Your task to perform on an android device: Open internet settings Image 0: 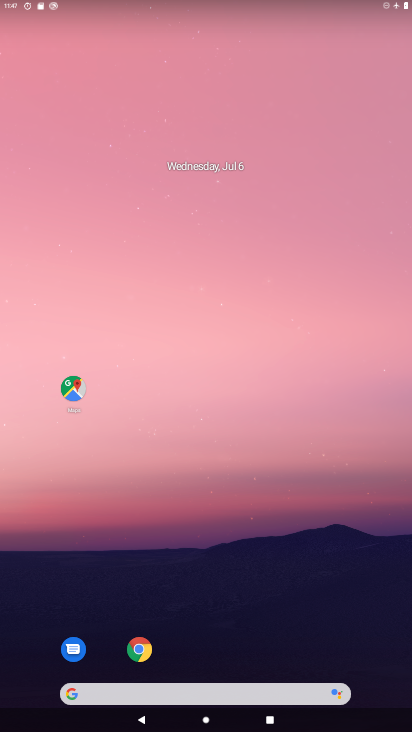
Step 0: drag from (365, 574) to (346, 142)
Your task to perform on an android device: Open internet settings Image 1: 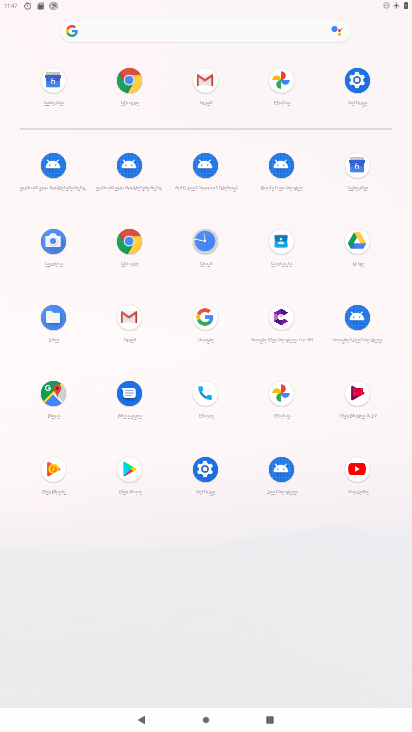
Step 1: click (346, 79)
Your task to perform on an android device: Open internet settings Image 2: 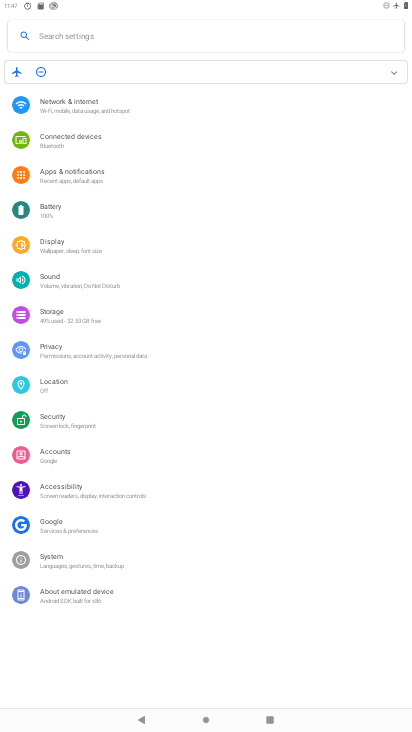
Step 2: click (91, 108)
Your task to perform on an android device: Open internet settings Image 3: 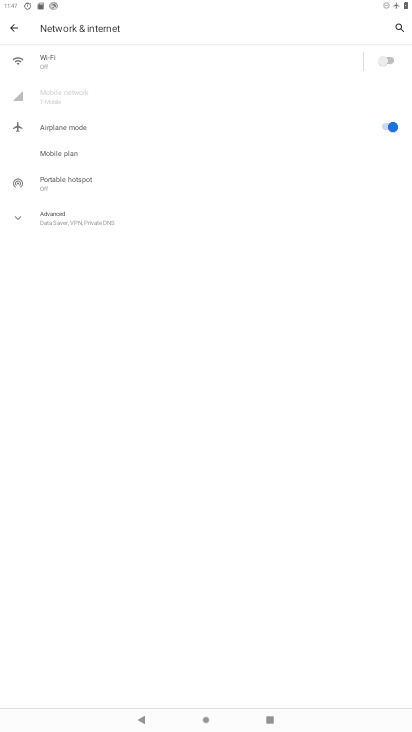
Step 3: click (18, 221)
Your task to perform on an android device: Open internet settings Image 4: 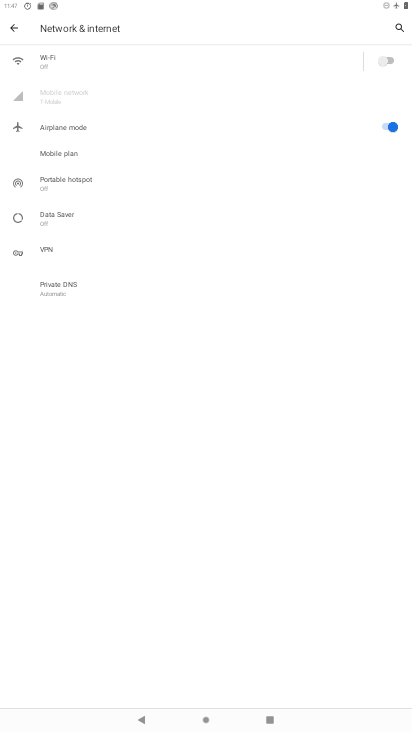
Step 4: task complete